Your task to perform on an android device: Open location settings Image 0: 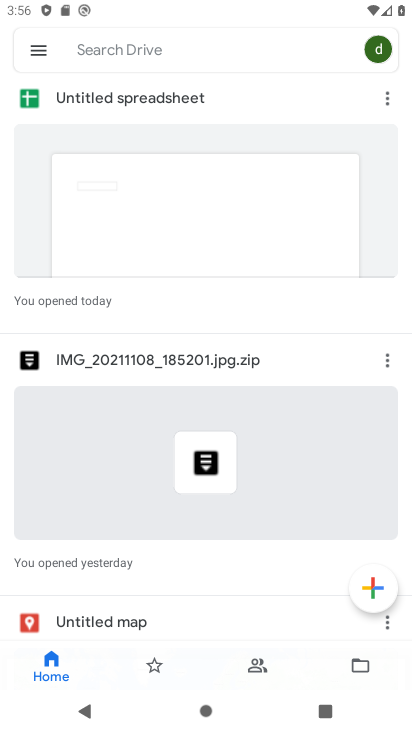
Step 0: press home button
Your task to perform on an android device: Open location settings Image 1: 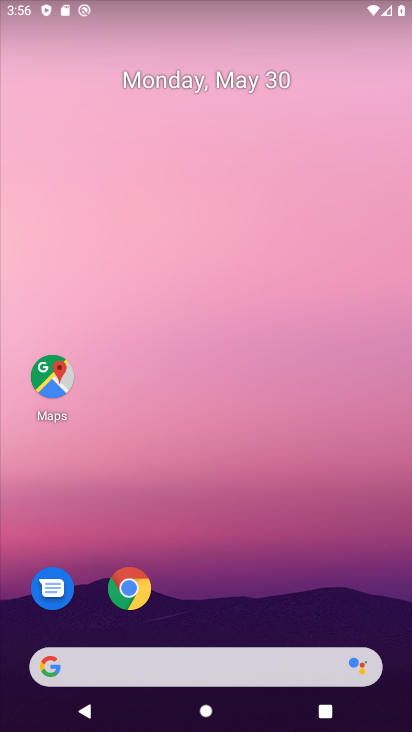
Step 1: drag from (257, 380) to (252, 95)
Your task to perform on an android device: Open location settings Image 2: 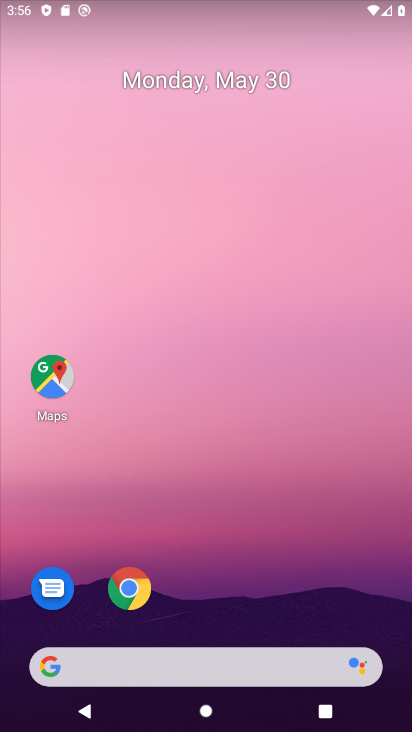
Step 2: drag from (257, 613) to (260, 66)
Your task to perform on an android device: Open location settings Image 3: 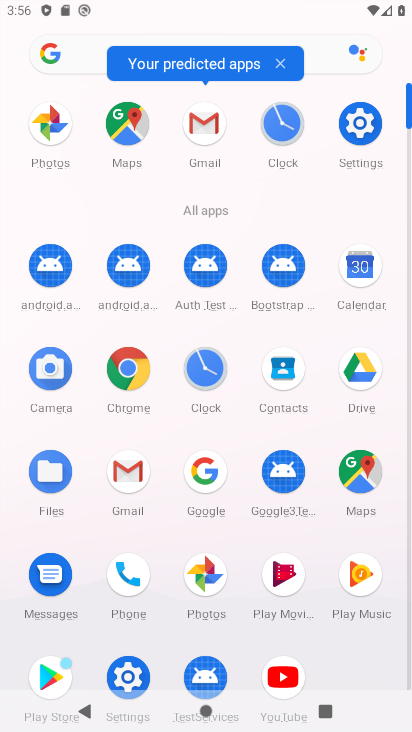
Step 3: click (367, 135)
Your task to perform on an android device: Open location settings Image 4: 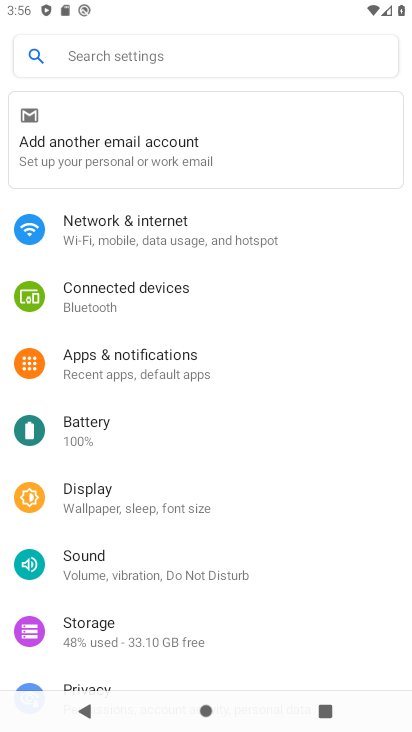
Step 4: drag from (290, 602) to (322, 209)
Your task to perform on an android device: Open location settings Image 5: 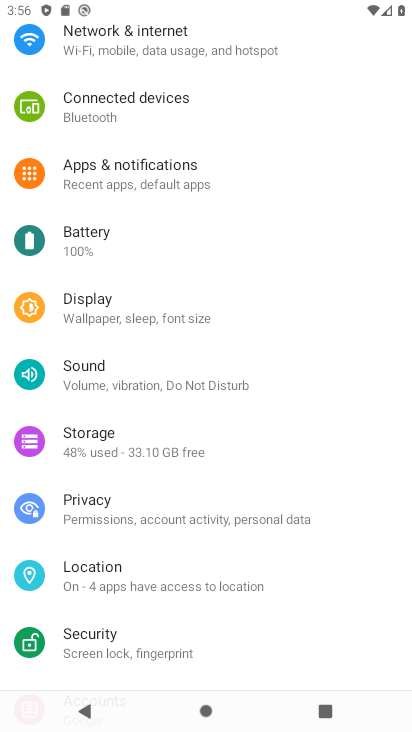
Step 5: click (87, 569)
Your task to perform on an android device: Open location settings Image 6: 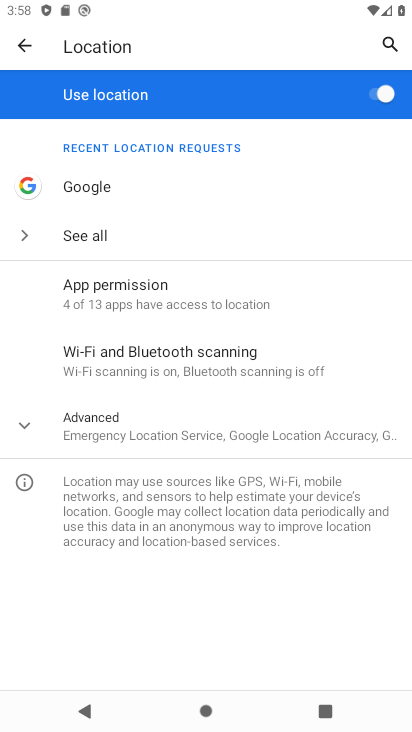
Step 6: task complete